Your task to perform on an android device: What's the weather going to be this weekend? Image 0: 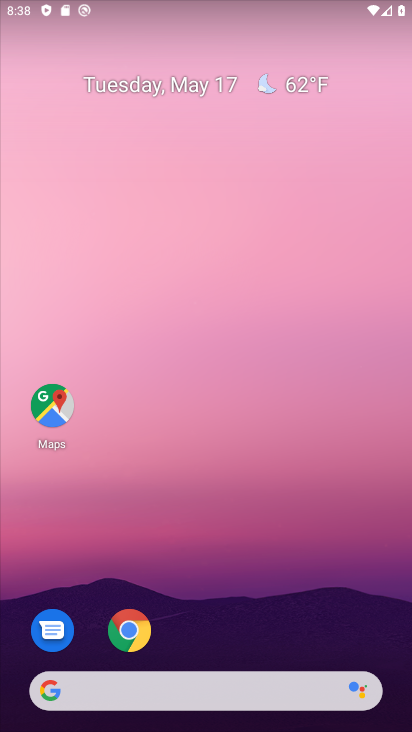
Step 0: click (295, 92)
Your task to perform on an android device: What's the weather going to be this weekend? Image 1: 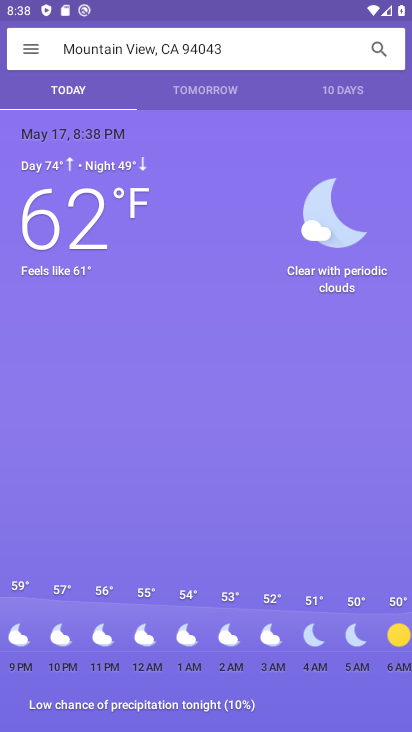
Step 1: click (349, 95)
Your task to perform on an android device: What's the weather going to be this weekend? Image 2: 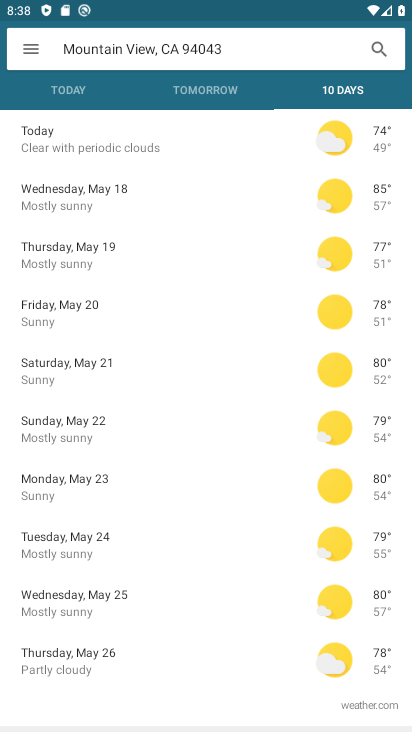
Step 2: task complete